Your task to perform on an android device: Go to privacy settings Image 0: 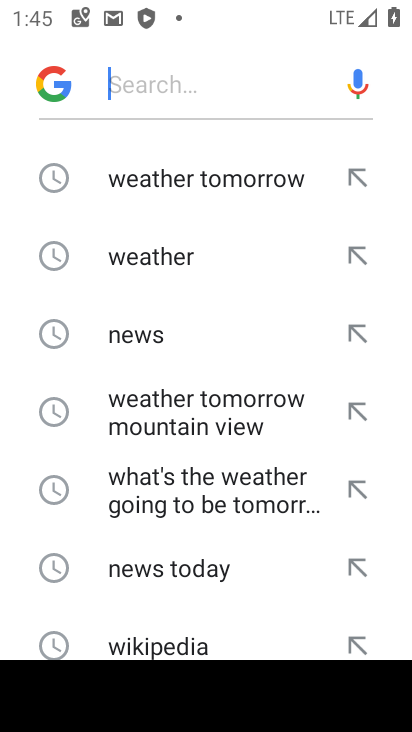
Step 0: press home button
Your task to perform on an android device: Go to privacy settings Image 1: 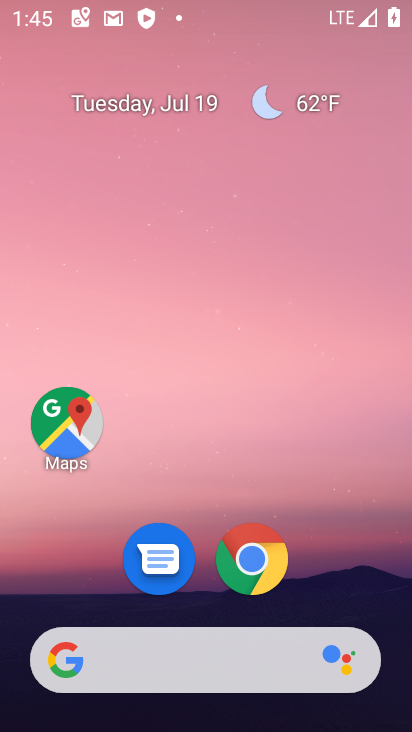
Step 1: drag from (242, 562) to (334, 221)
Your task to perform on an android device: Go to privacy settings Image 2: 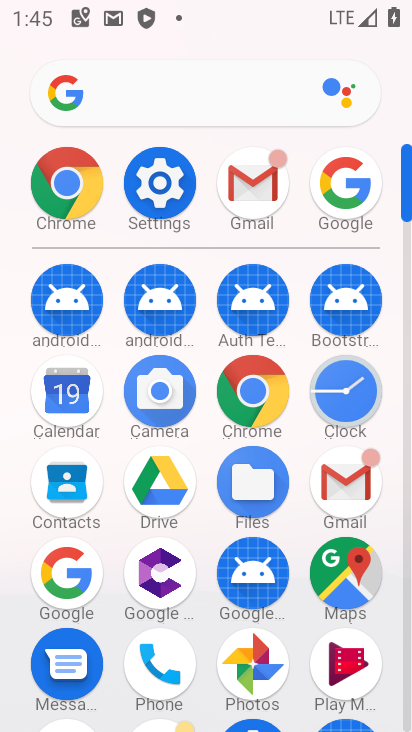
Step 2: click (188, 196)
Your task to perform on an android device: Go to privacy settings Image 3: 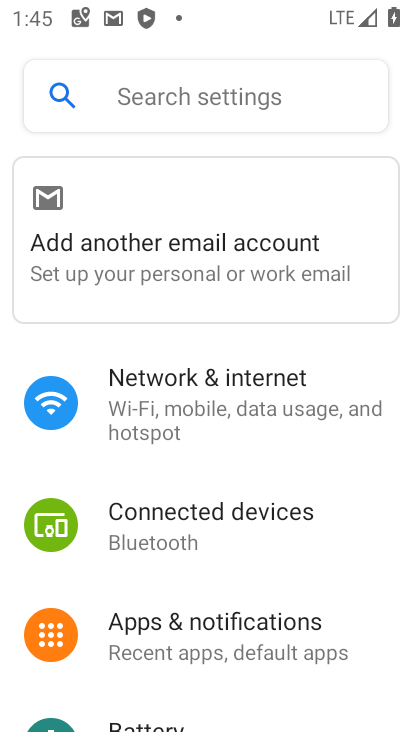
Step 3: drag from (218, 623) to (242, 104)
Your task to perform on an android device: Go to privacy settings Image 4: 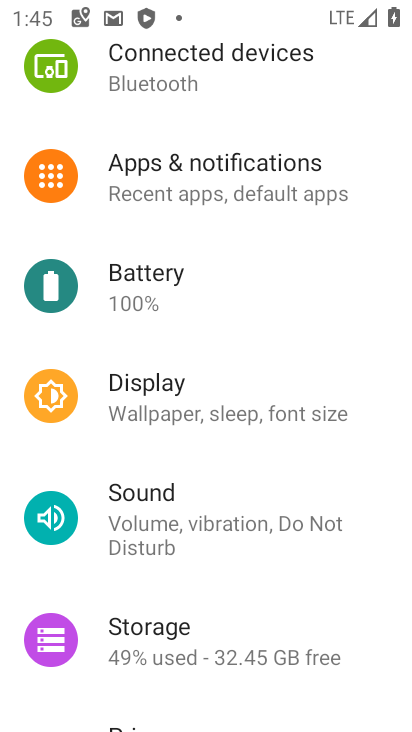
Step 4: drag from (215, 640) to (262, 213)
Your task to perform on an android device: Go to privacy settings Image 5: 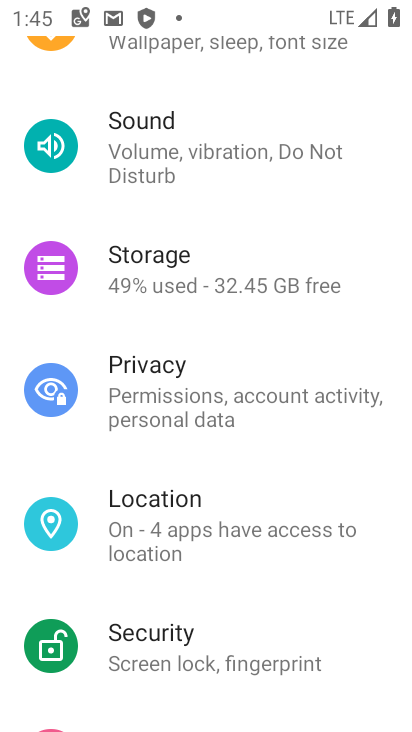
Step 5: click (218, 412)
Your task to perform on an android device: Go to privacy settings Image 6: 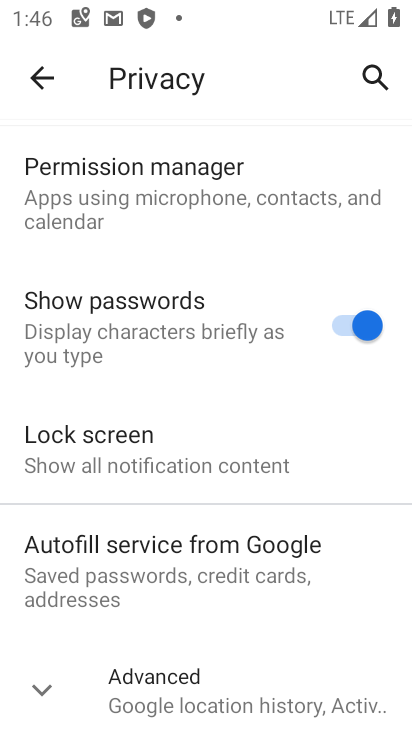
Step 6: task complete